Your task to perform on an android device: open device folders in google photos Image 0: 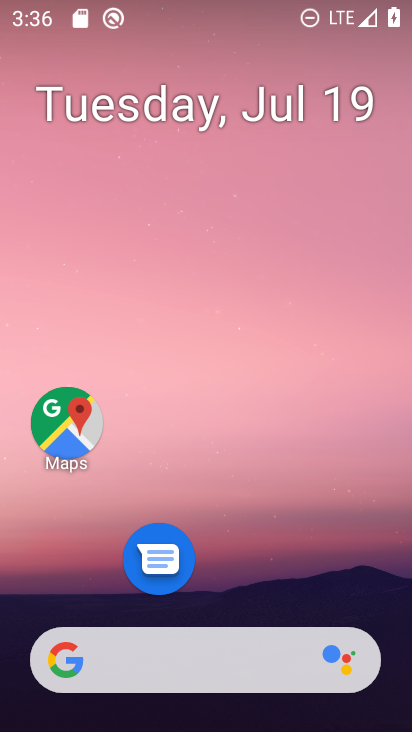
Step 0: drag from (160, 593) to (216, 155)
Your task to perform on an android device: open device folders in google photos Image 1: 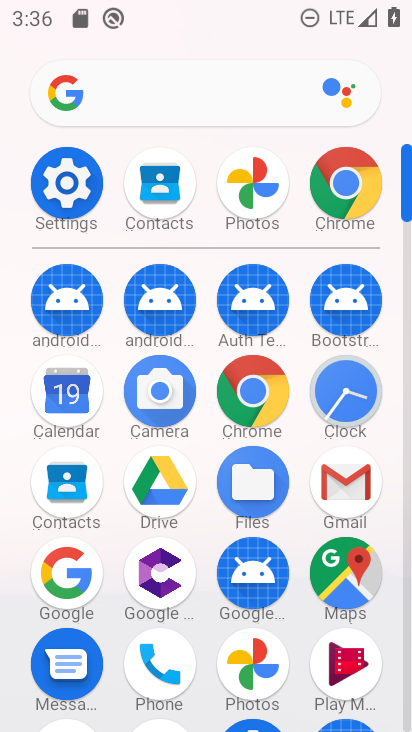
Step 1: click (266, 675)
Your task to perform on an android device: open device folders in google photos Image 2: 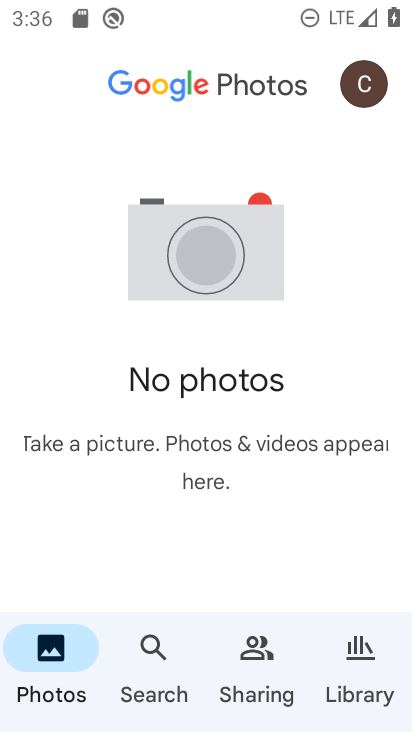
Step 2: click (376, 89)
Your task to perform on an android device: open device folders in google photos Image 3: 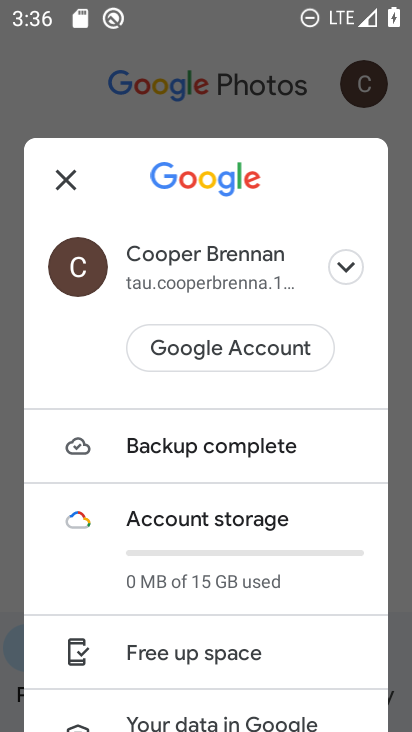
Step 3: task complete